Your task to perform on an android device: make emails show in primary in the gmail app Image 0: 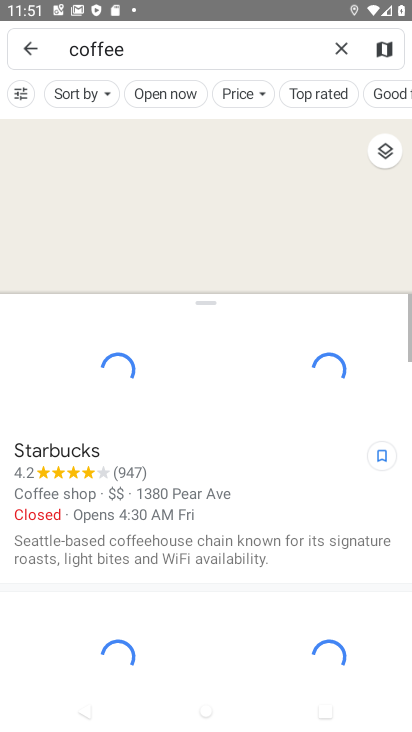
Step 0: press home button
Your task to perform on an android device: make emails show in primary in the gmail app Image 1: 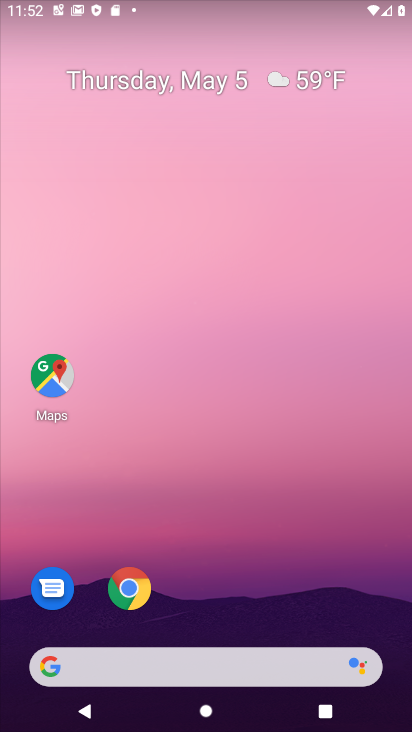
Step 1: drag from (176, 646) to (360, 74)
Your task to perform on an android device: make emails show in primary in the gmail app Image 2: 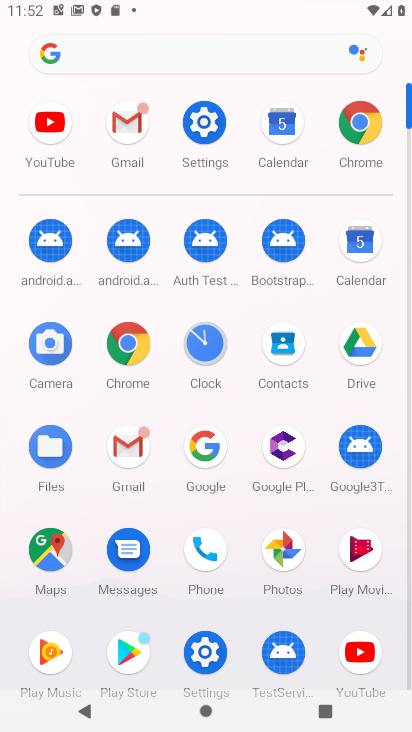
Step 2: click (132, 130)
Your task to perform on an android device: make emails show in primary in the gmail app Image 3: 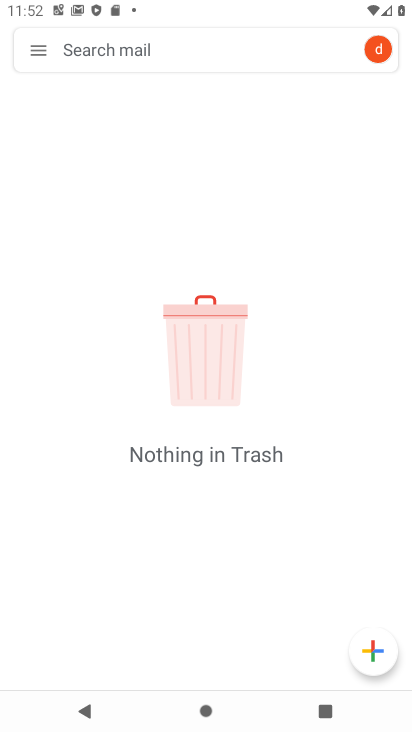
Step 3: click (43, 48)
Your task to perform on an android device: make emails show in primary in the gmail app Image 4: 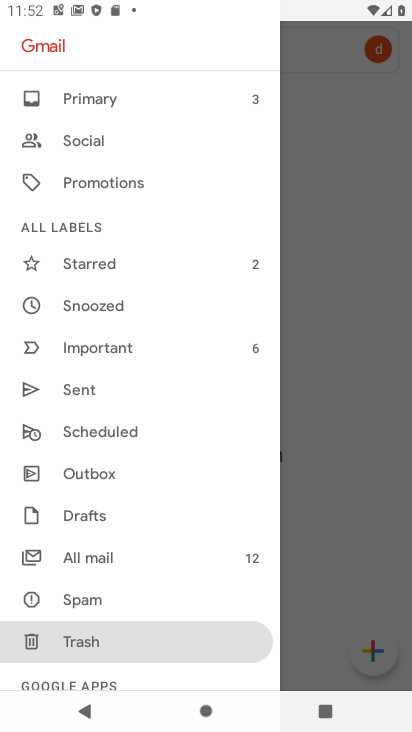
Step 4: drag from (149, 597) to (224, 147)
Your task to perform on an android device: make emails show in primary in the gmail app Image 5: 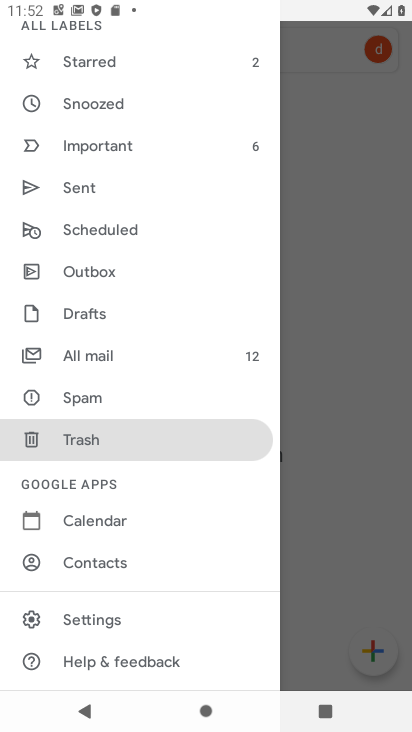
Step 5: click (91, 621)
Your task to perform on an android device: make emails show in primary in the gmail app Image 6: 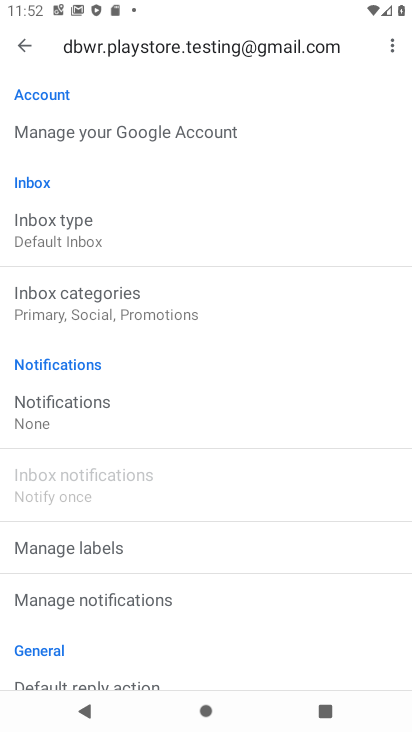
Step 6: click (108, 314)
Your task to perform on an android device: make emails show in primary in the gmail app Image 7: 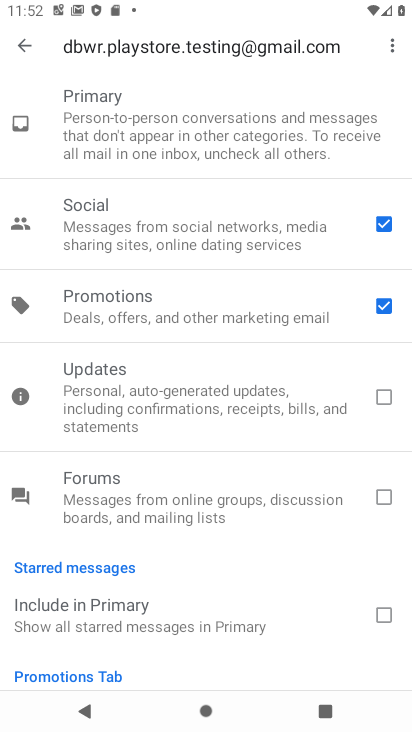
Step 7: click (383, 218)
Your task to perform on an android device: make emails show in primary in the gmail app Image 8: 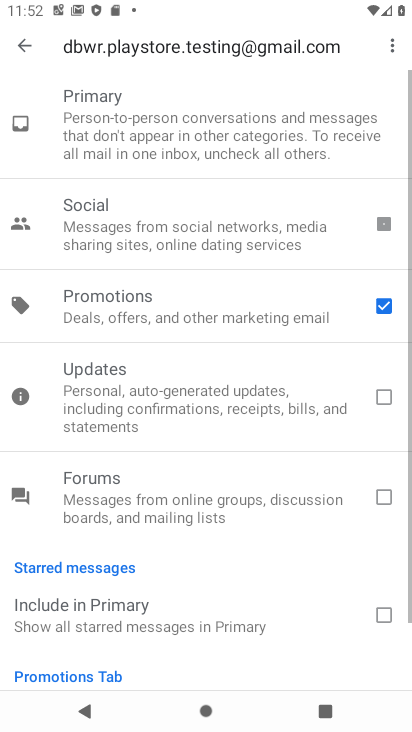
Step 8: click (387, 302)
Your task to perform on an android device: make emails show in primary in the gmail app Image 9: 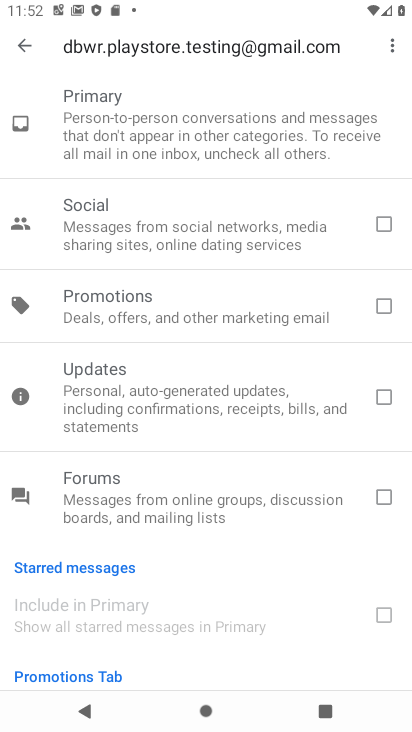
Step 9: click (27, 47)
Your task to perform on an android device: make emails show in primary in the gmail app Image 10: 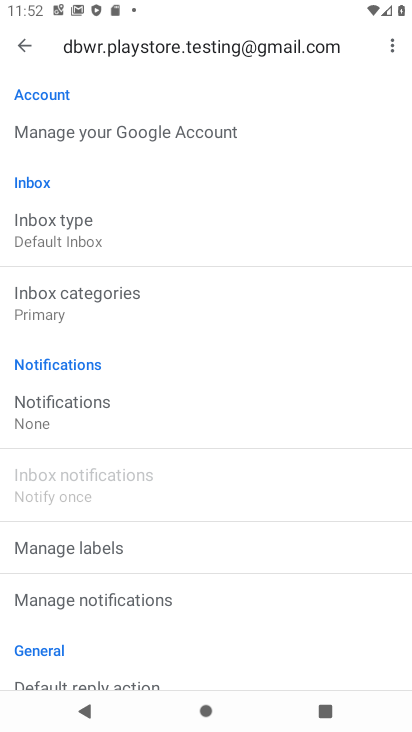
Step 10: task complete